Your task to perform on an android device: turn on wifi Image 0: 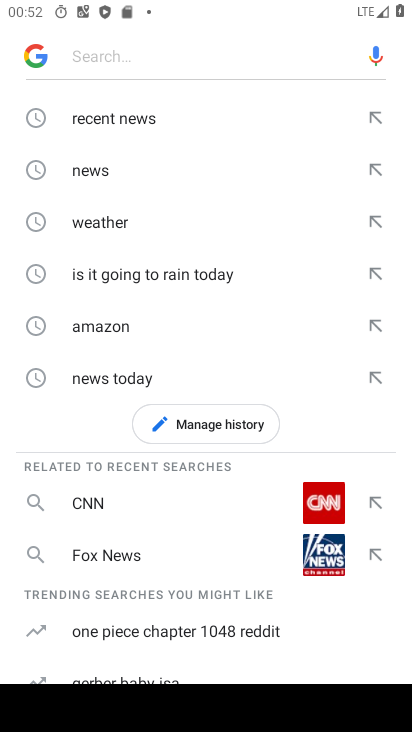
Step 0: press home button
Your task to perform on an android device: turn on wifi Image 1: 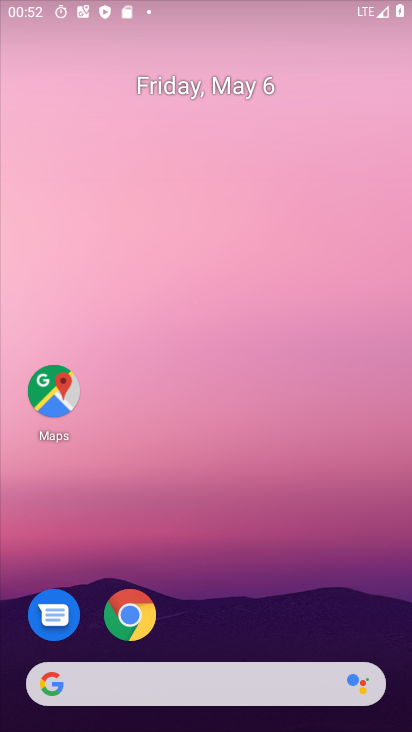
Step 1: drag from (222, 614) to (245, 74)
Your task to perform on an android device: turn on wifi Image 2: 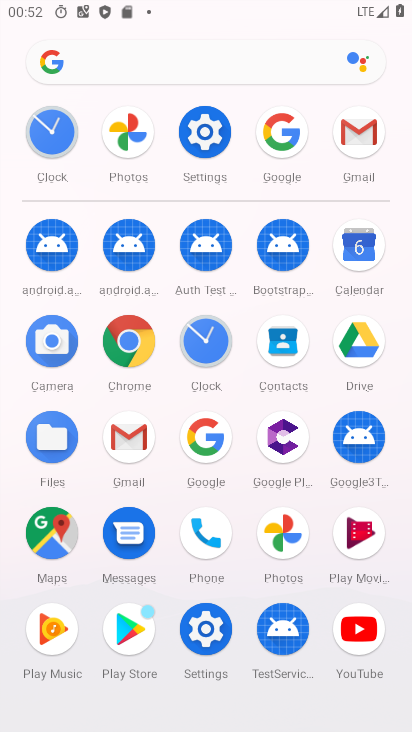
Step 2: click (200, 141)
Your task to perform on an android device: turn on wifi Image 3: 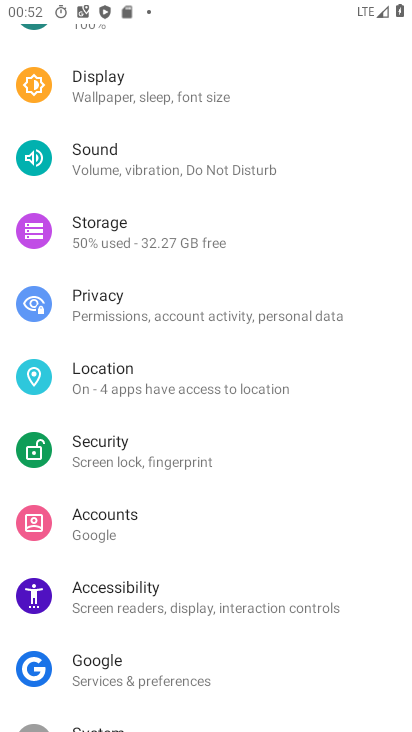
Step 3: drag from (190, 143) to (250, 642)
Your task to perform on an android device: turn on wifi Image 4: 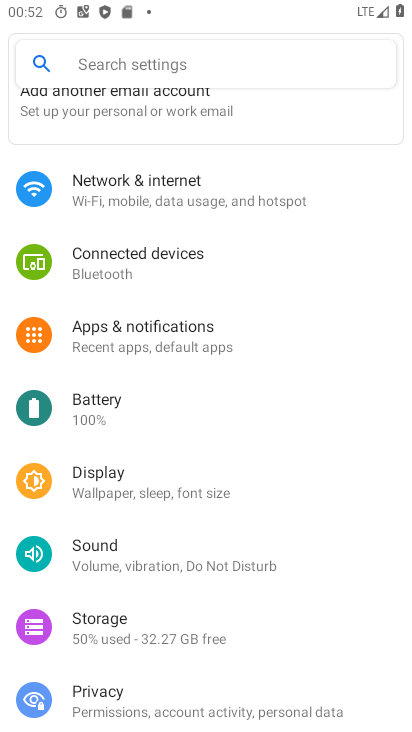
Step 4: click (168, 199)
Your task to perform on an android device: turn on wifi Image 5: 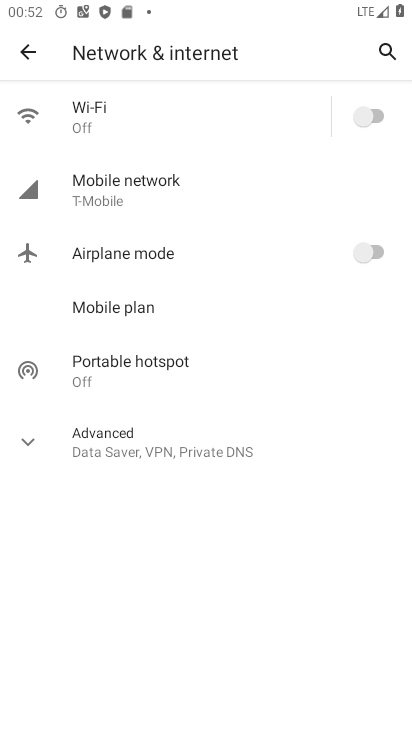
Step 5: click (363, 115)
Your task to perform on an android device: turn on wifi Image 6: 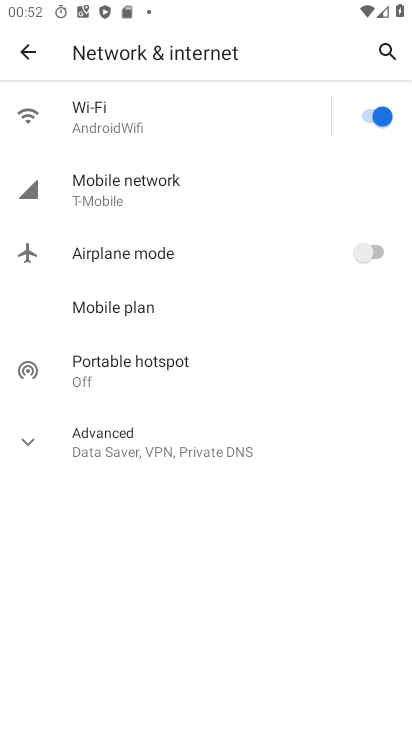
Step 6: task complete